Your task to perform on an android device: turn off notifications in google photos Image 0: 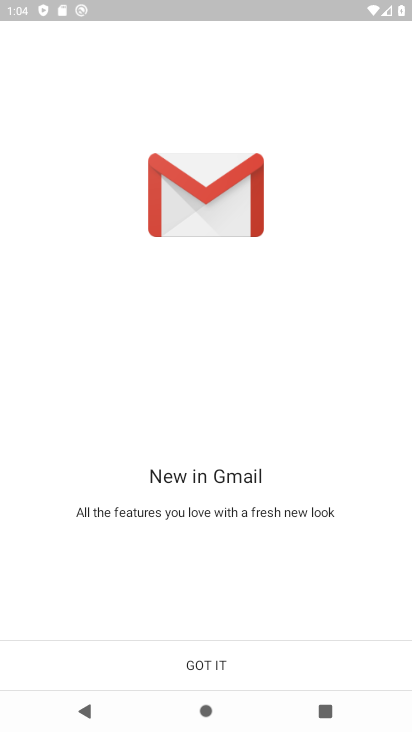
Step 0: press home button
Your task to perform on an android device: turn off notifications in google photos Image 1: 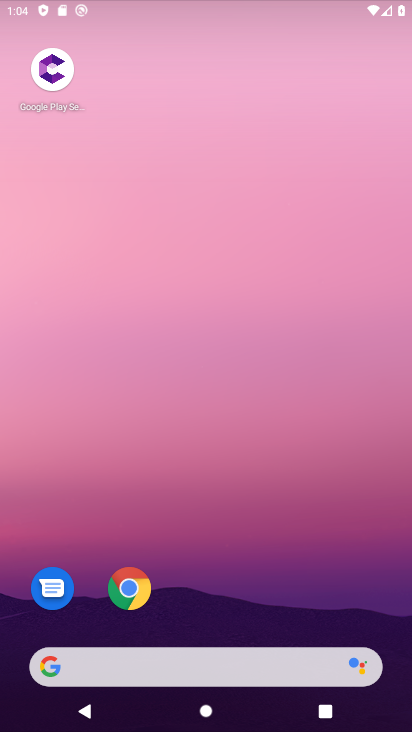
Step 1: drag from (238, 591) to (206, 146)
Your task to perform on an android device: turn off notifications in google photos Image 2: 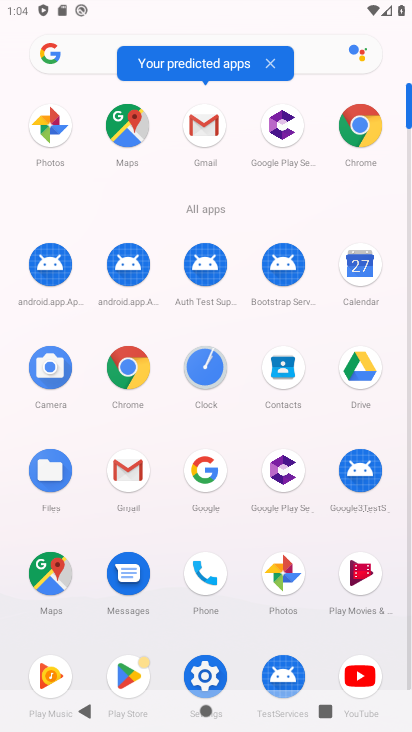
Step 2: click (60, 124)
Your task to perform on an android device: turn off notifications in google photos Image 3: 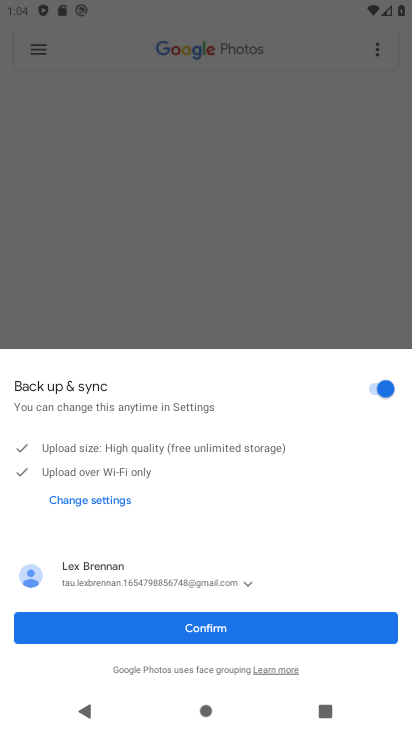
Step 3: click (211, 624)
Your task to perform on an android device: turn off notifications in google photos Image 4: 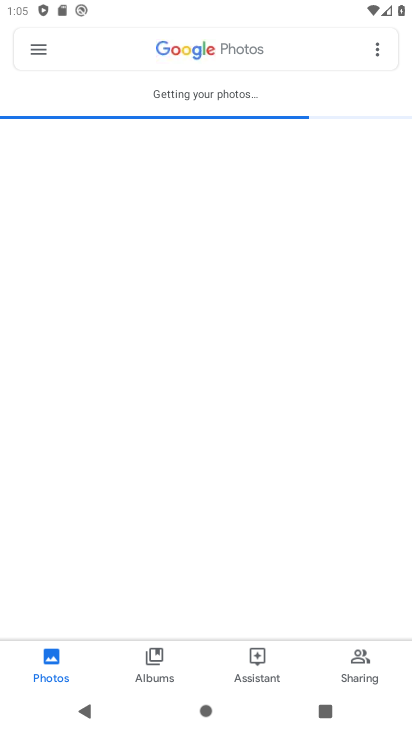
Step 4: click (46, 48)
Your task to perform on an android device: turn off notifications in google photos Image 5: 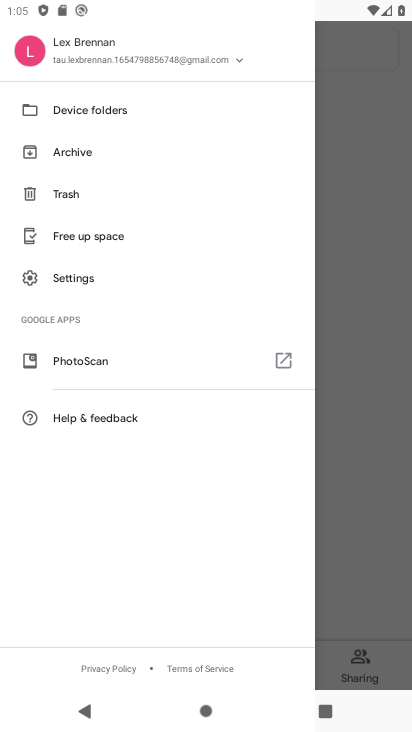
Step 5: click (67, 280)
Your task to perform on an android device: turn off notifications in google photos Image 6: 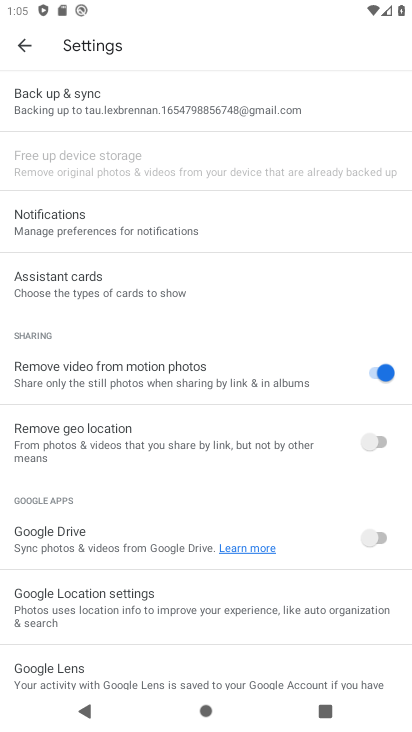
Step 6: click (113, 233)
Your task to perform on an android device: turn off notifications in google photos Image 7: 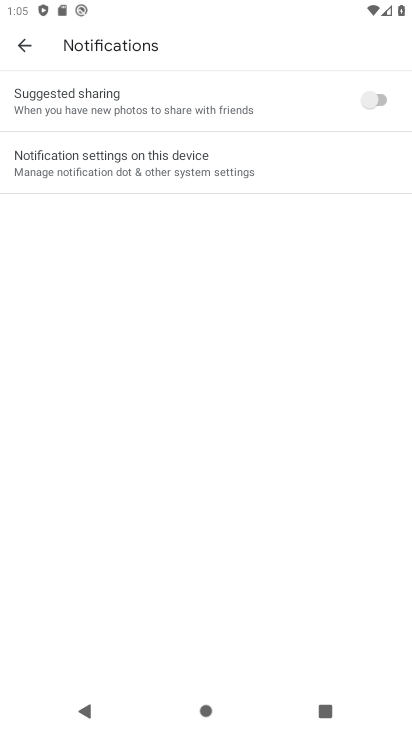
Step 7: click (172, 180)
Your task to perform on an android device: turn off notifications in google photos Image 8: 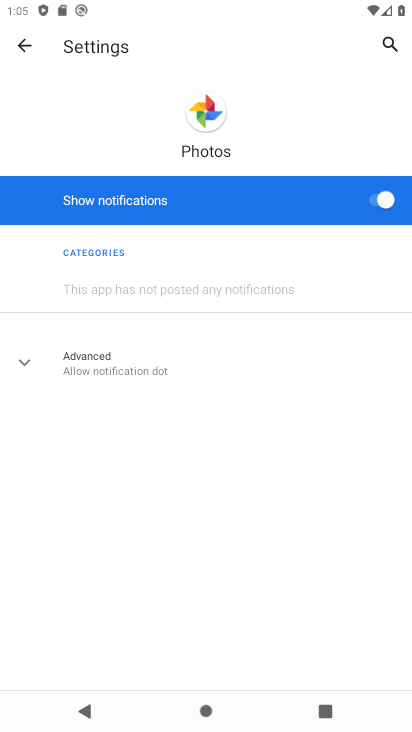
Step 8: click (361, 211)
Your task to perform on an android device: turn off notifications in google photos Image 9: 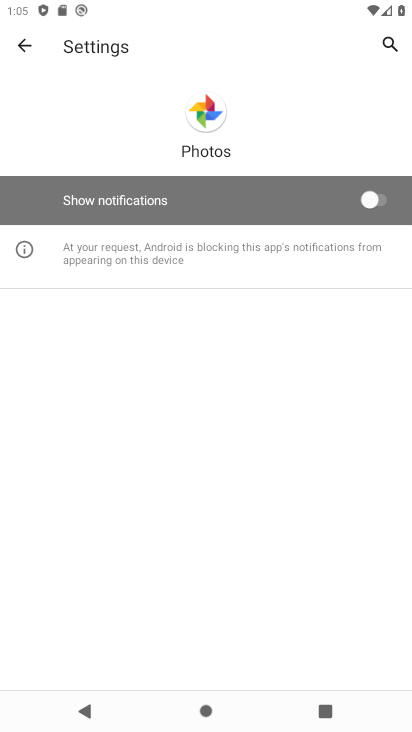
Step 9: task complete